Your task to perform on an android device: Open settings Image 0: 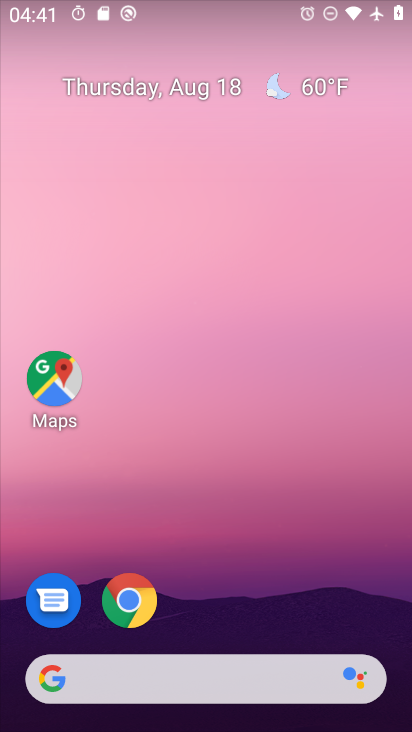
Step 0: press home button
Your task to perform on an android device: Open settings Image 1: 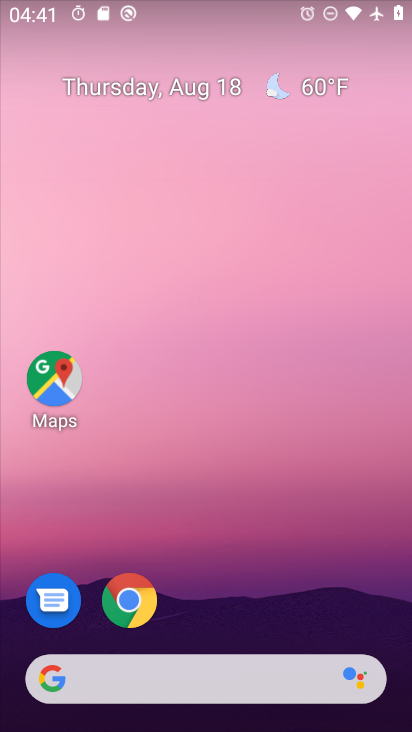
Step 1: drag from (233, 654) to (271, 99)
Your task to perform on an android device: Open settings Image 2: 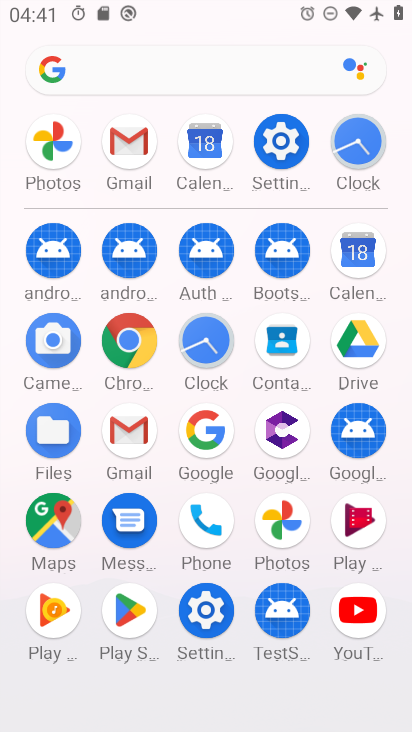
Step 2: click (211, 616)
Your task to perform on an android device: Open settings Image 3: 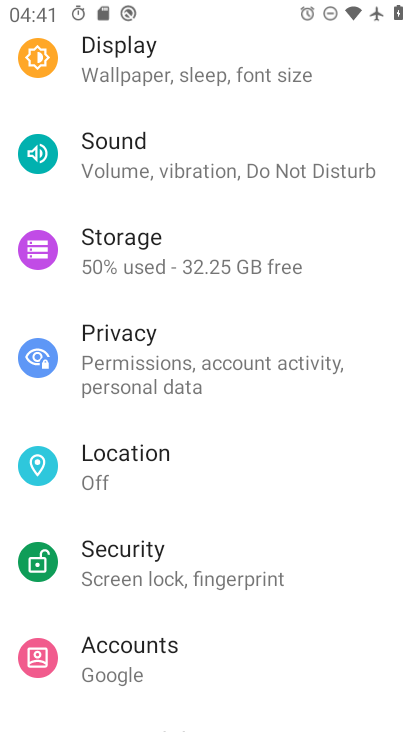
Step 3: task complete